Your task to perform on an android device: Open Google Maps and go to "Timeline" Image 0: 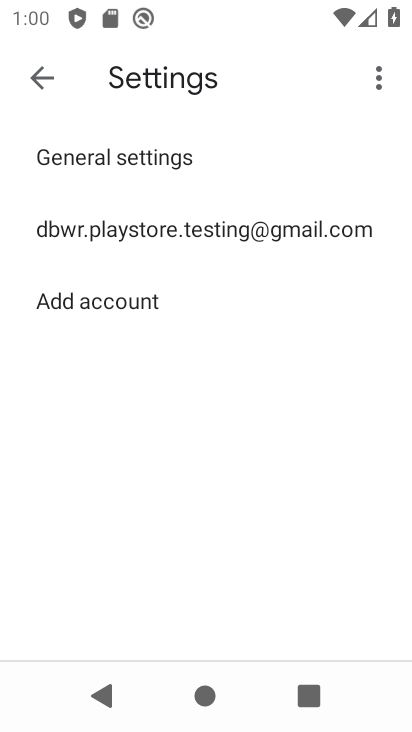
Step 0: press back button
Your task to perform on an android device: Open Google Maps and go to "Timeline" Image 1: 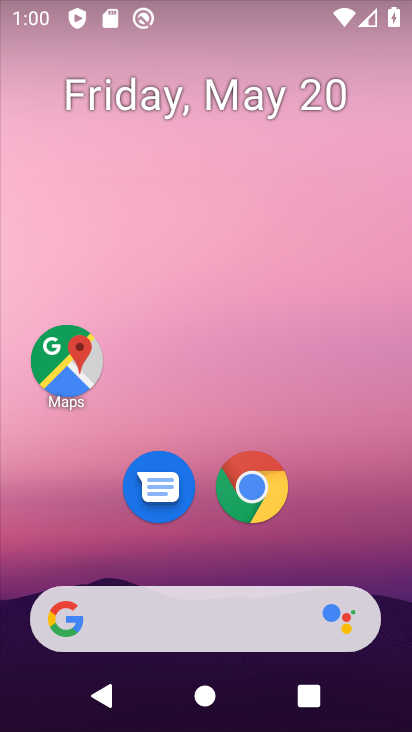
Step 1: drag from (359, 490) to (286, 44)
Your task to perform on an android device: Open Google Maps and go to "Timeline" Image 2: 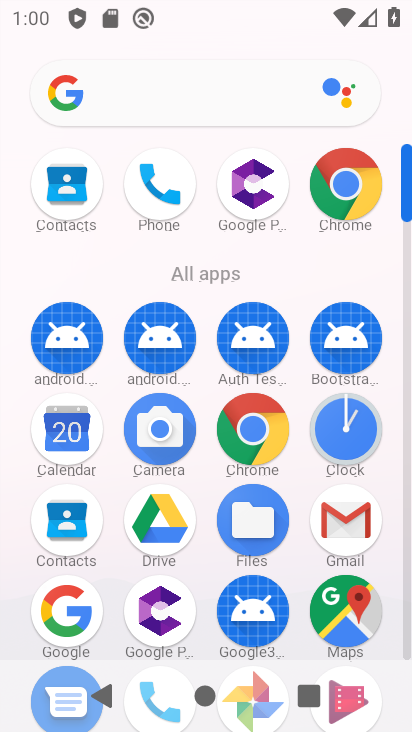
Step 2: drag from (6, 520) to (13, 225)
Your task to perform on an android device: Open Google Maps and go to "Timeline" Image 3: 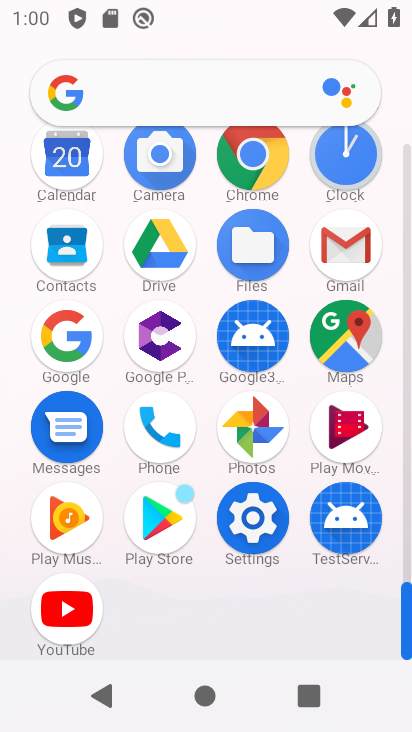
Step 3: click (342, 332)
Your task to perform on an android device: Open Google Maps and go to "Timeline" Image 4: 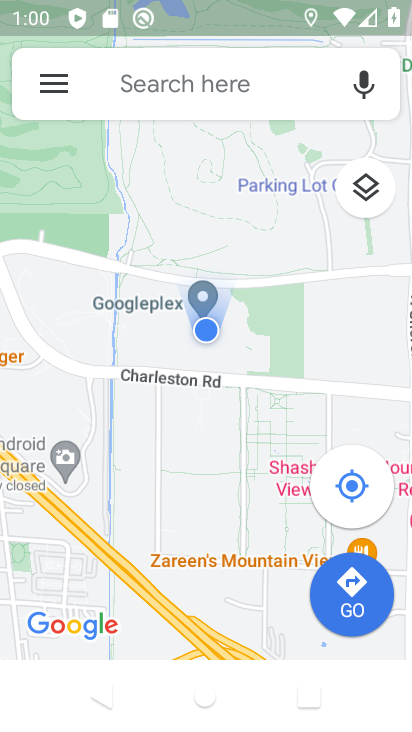
Step 4: click (46, 78)
Your task to perform on an android device: Open Google Maps and go to "Timeline" Image 5: 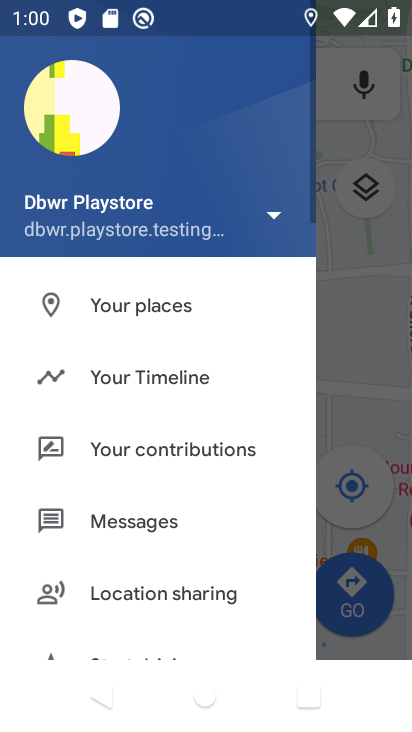
Step 5: click (153, 376)
Your task to perform on an android device: Open Google Maps and go to "Timeline" Image 6: 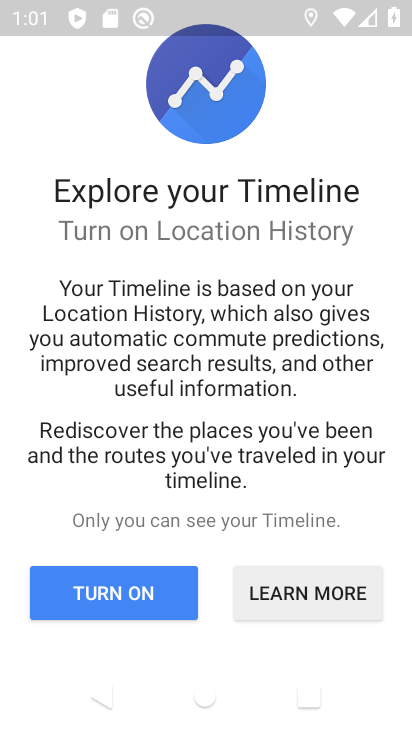
Step 6: click (147, 594)
Your task to perform on an android device: Open Google Maps and go to "Timeline" Image 7: 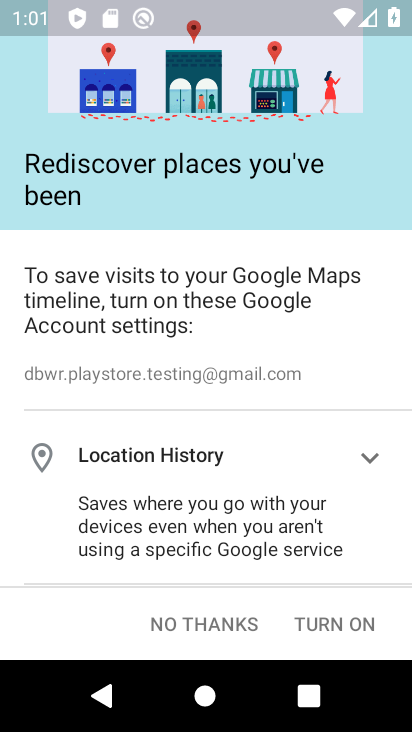
Step 7: click (347, 617)
Your task to perform on an android device: Open Google Maps and go to "Timeline" Image 8: 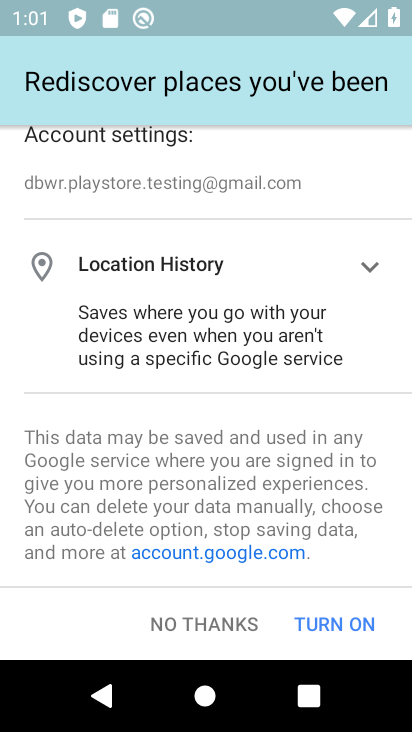
Step 8: click (347, 617)
Your task to perform on an android device: Open Google Maps and go to "Timeline" Image 9: 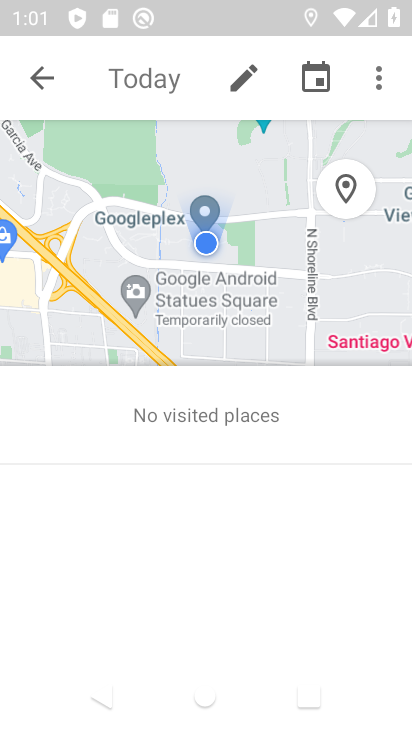
Step 9: task complete